Your task to perform on an android device: turn off location history Image 0: 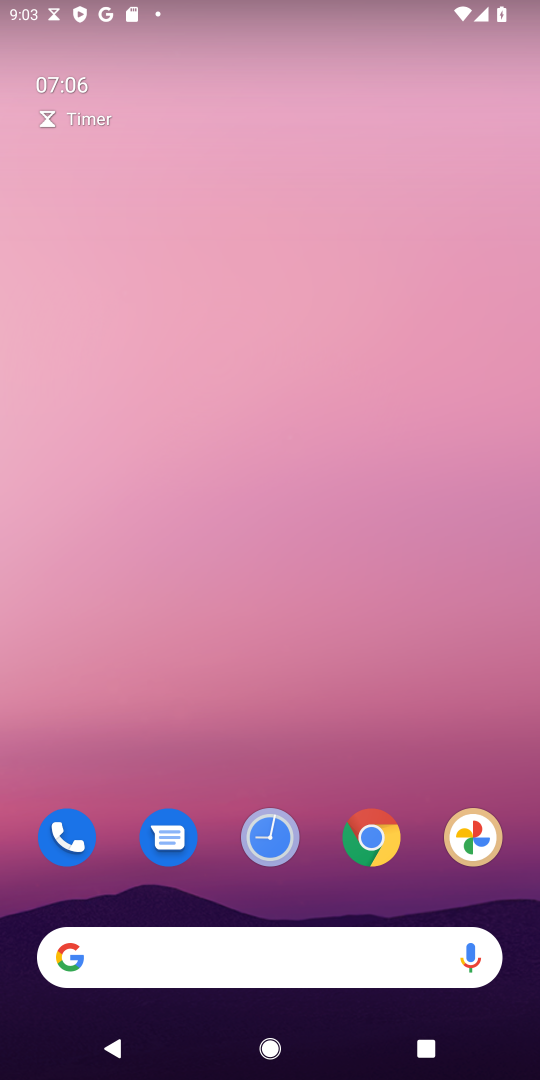
Step 0: drag from (320, 863) to (320, 153)
Your task to perform on an android device: turn off location history Image 1: 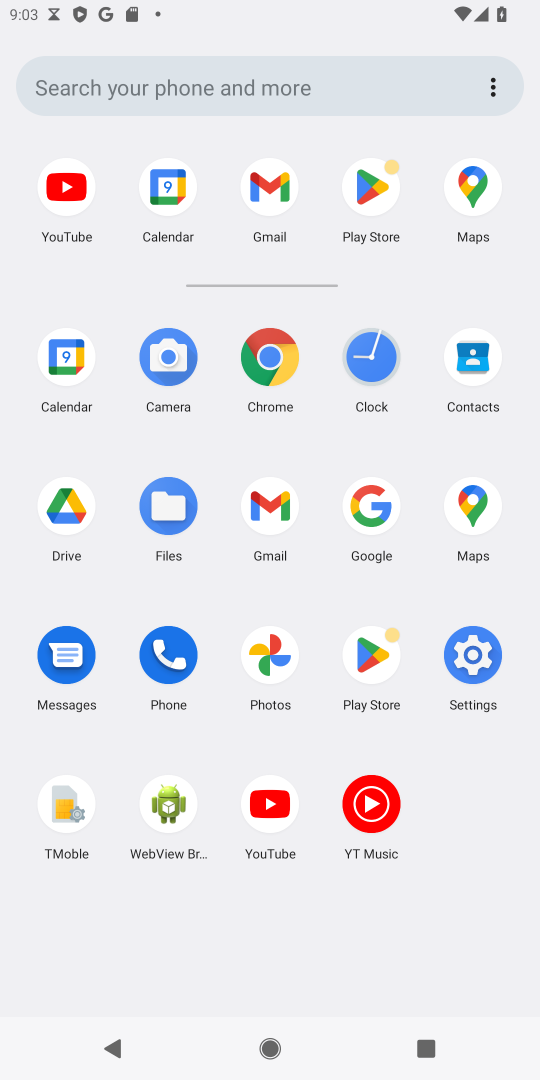
Step 1: click (473, 660)
Your task to perform on an android device: turn off location history Image 2: 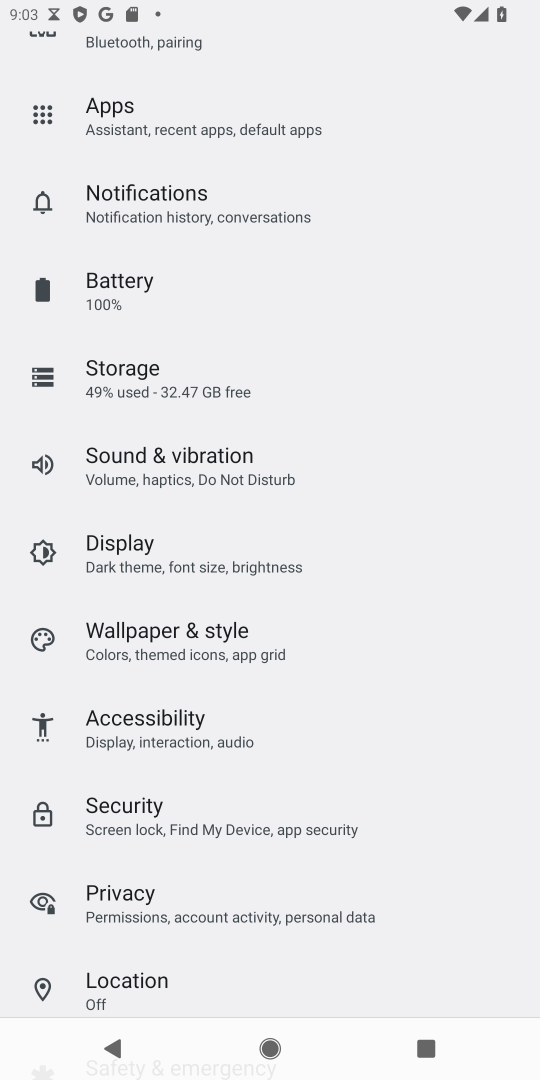
Step 2: click (133, 978)
Your task to perform on an android device: turn off location history Image 3: 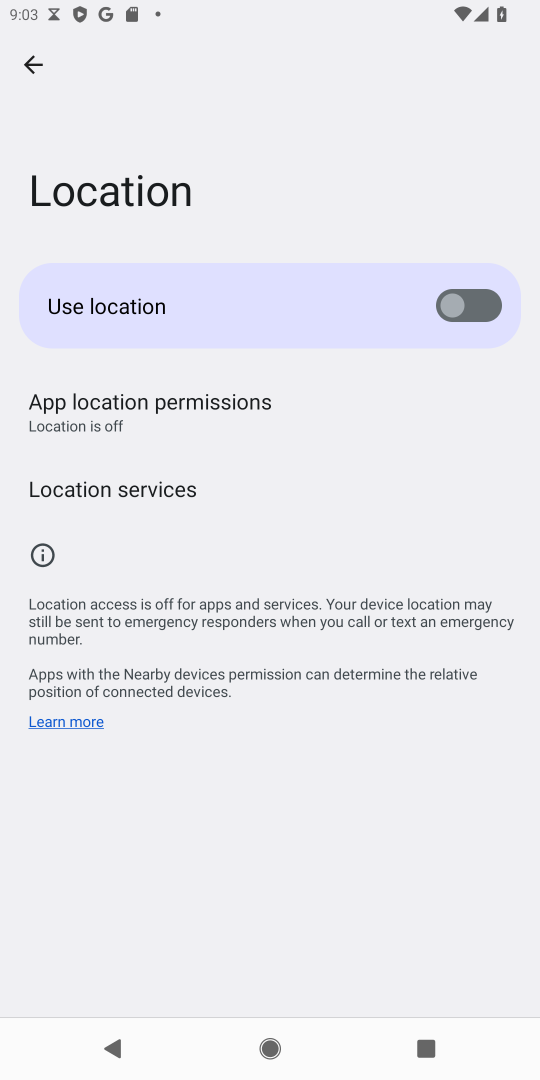
Step 3: click (184, 482)
Your task to perform on an android device: turn off location history Image 4: 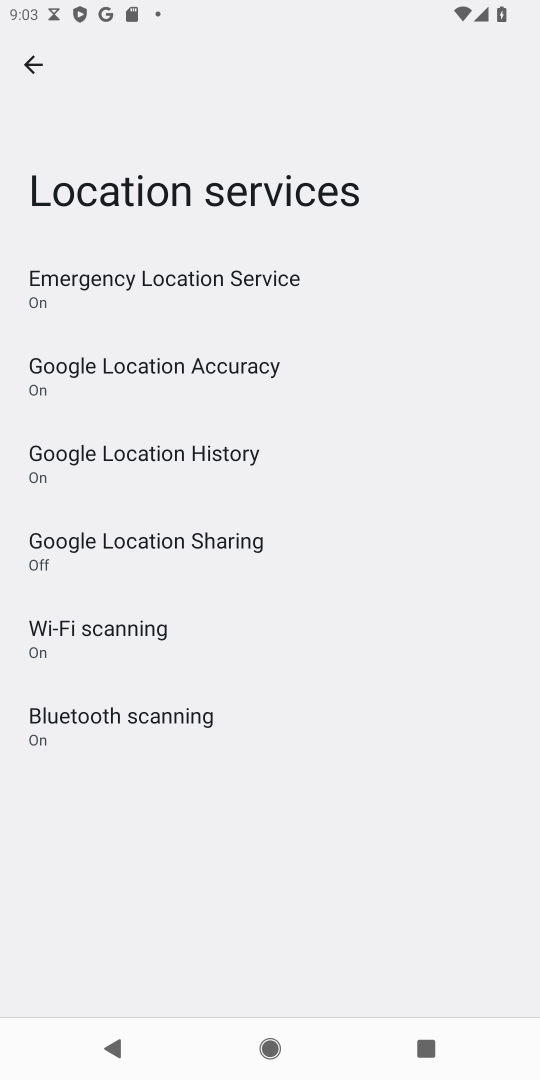
Step 4: click (204, 448)
Your task to perform on an android device: turn off location history Image 5: 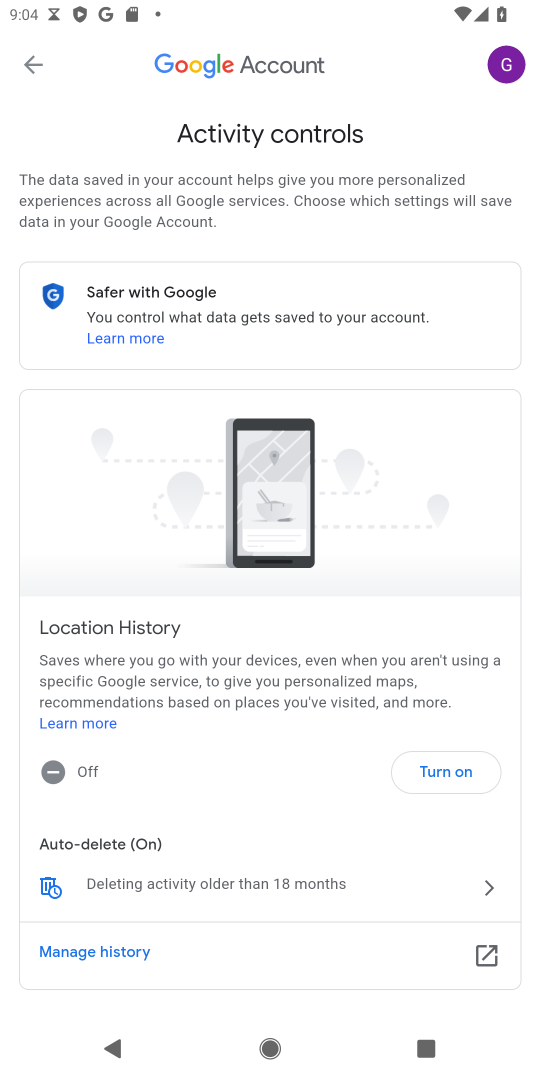
Step 5: task complete